Your task to perform on an android device: Open the Play Movies app and select the watchlist tab. Image 0: 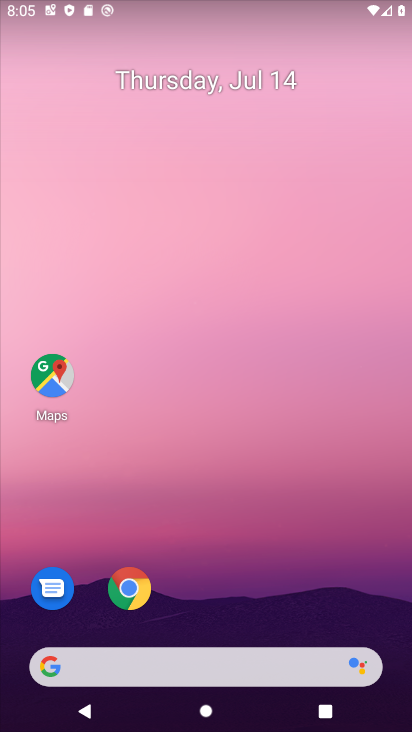
Step 0: drag from (306, 588) to (239, 93)
Your task to perform on an android device: Open the Play Movies app and select the watchlist tab. Image 1: 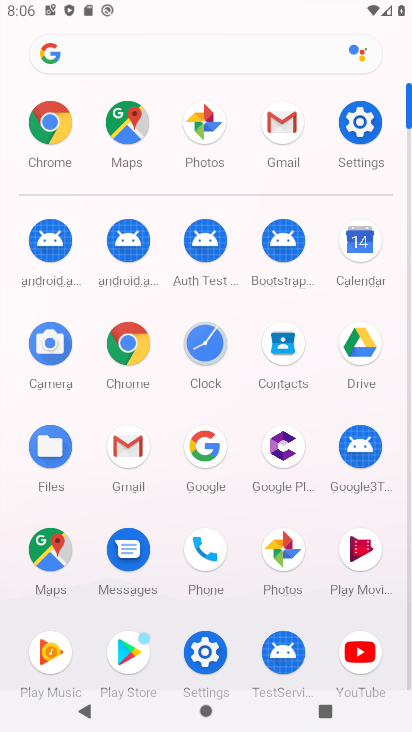
Step 1: click (368, 552)
Your task to perform on an android device: Open the Play Movies app and select the watchlist tab. Image 2: 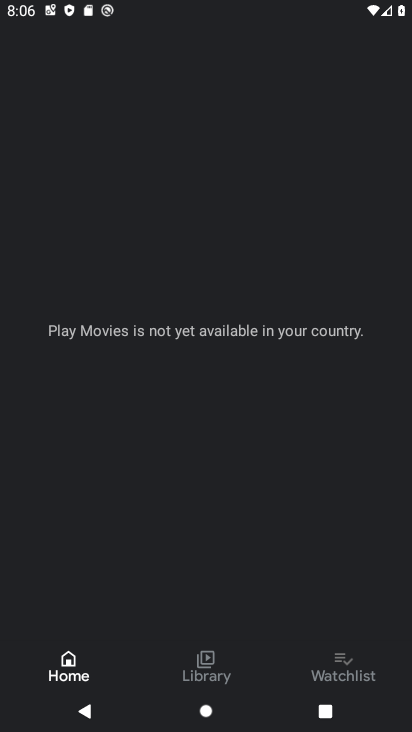
Step 2: click (351, 681)
Your task to perform on an android device: Open the Play Movies app and select the watchlist tab. Image 3: 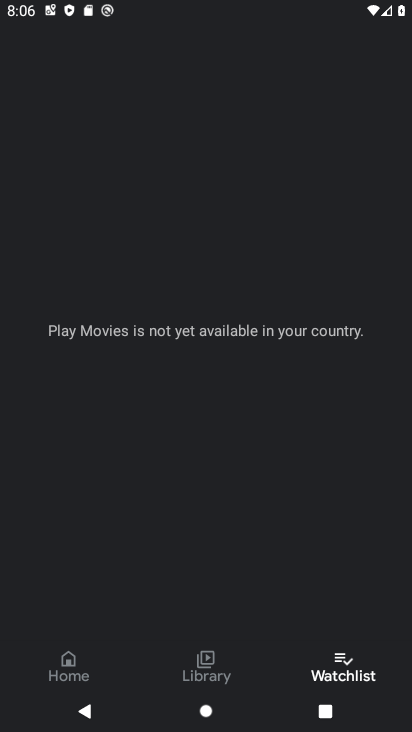
Step 3: click (351, 681)
Your task to perform on an android device: Open the Play Movies app and select the watchlist tab. Image 4: 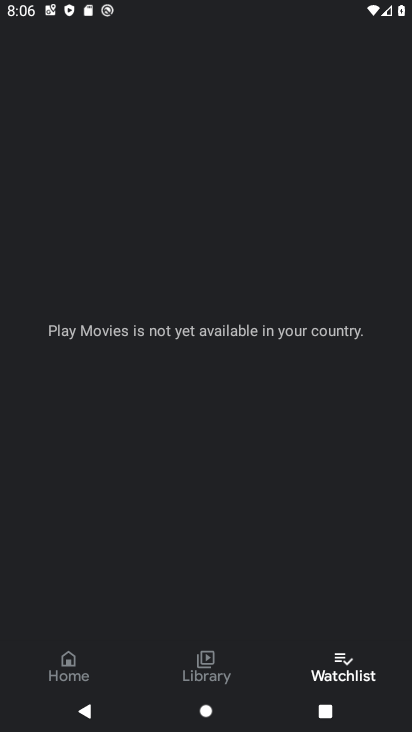
Step 4: task complete